Your task to perform on an android device: Open Reddit.com Image 0: 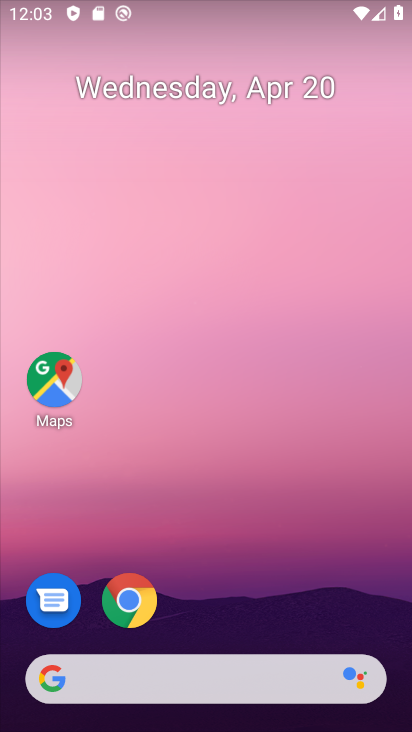
Step 0: drag from (281, 504) to (274, 12)
Your task to perform on an android device: Open Reddit.com Image 1: 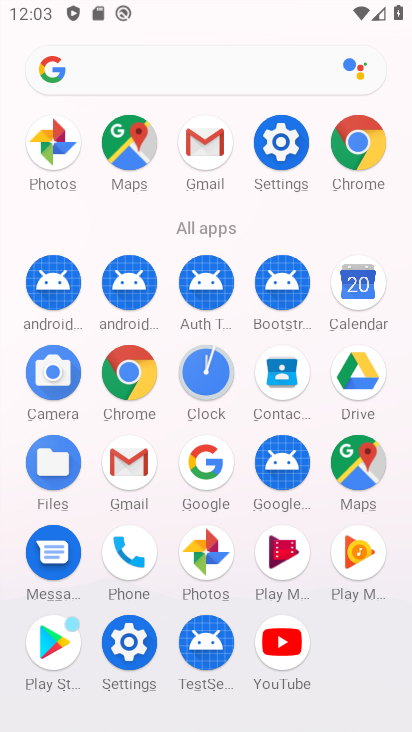
Step 1: click (358, 143)
Your task to perform on an android device: Open Reddit.com Image 2: 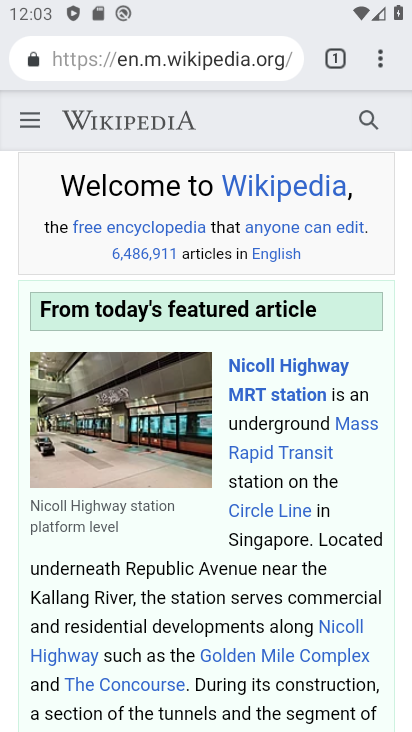
Step 2: click (181, 69)
Your task to perform on an android device: Open Reddit.com Image 3: 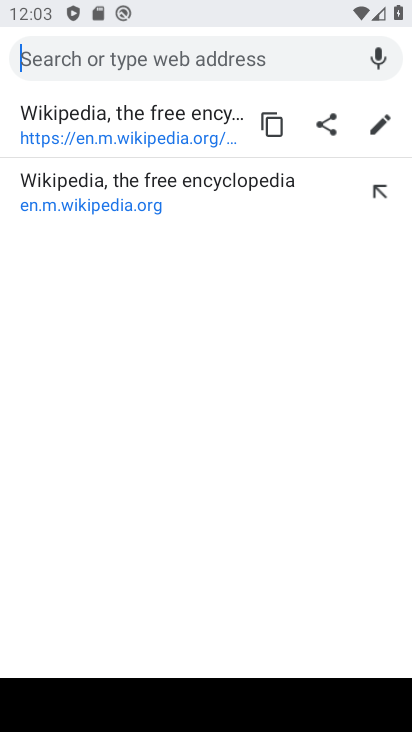
Step 3: type "Reddit.com"
Your task to perform on an android device: Open Reddit.com Image 4: 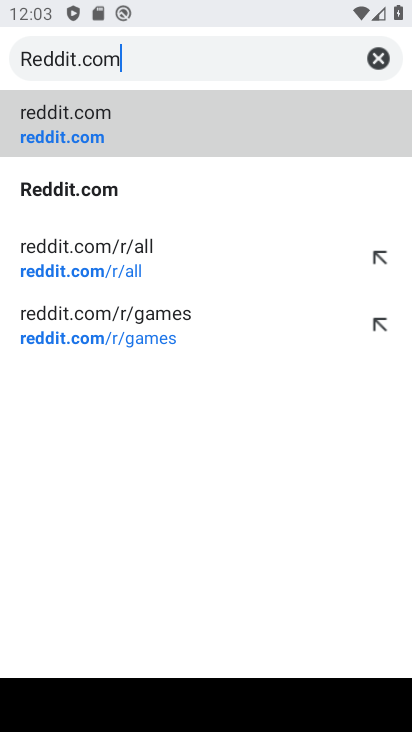
Step 4: click (125, 109)
Your task to perform on an android device: Open Reddit.com Image 5: 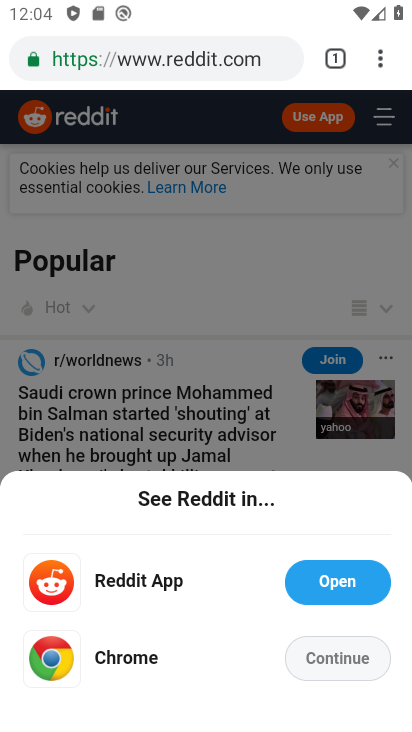
Step 5: task complete